Your task to perform on an android device: Open notification settings Image 0: 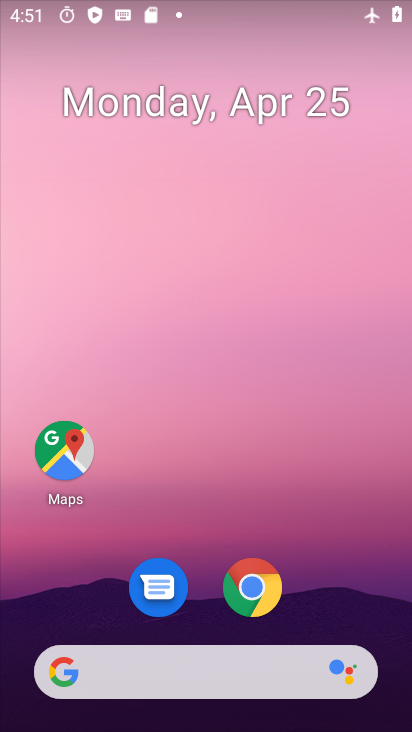
Step 0: drag from (324, 453) to (336, 87)
Your task to perform on an android device: Open notification settings Image 1: 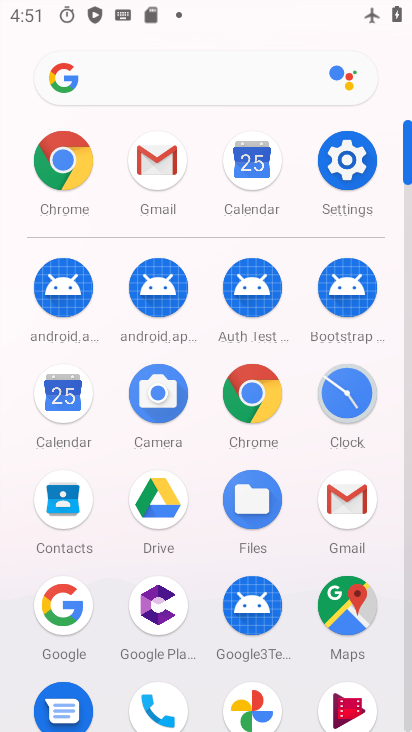
Step 1: click (355, 163)
Your task to perform on an android device: Open notification settings Image 2: 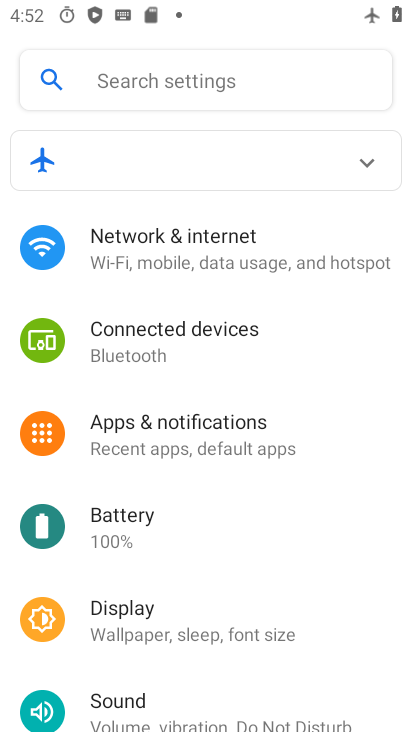
Step 2: drag from (191, 506) to (213, 352)
Your task to perform on an android device: Open notification settings Image 3: 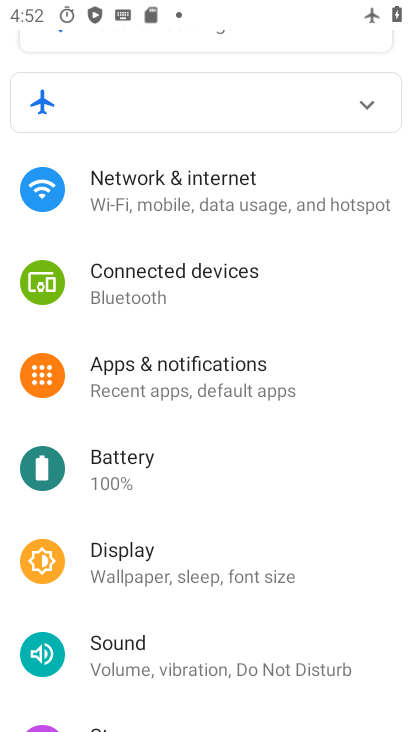
Step 3: click (199, 367)
Your task to perform on an android device: Open notification settings Image 4: 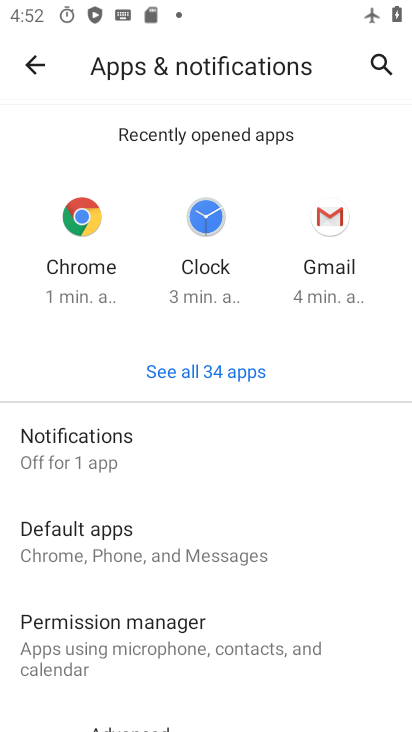
Step 4: click (98, 456)
Your task to perform on an android device: Open notification settings Image 5: 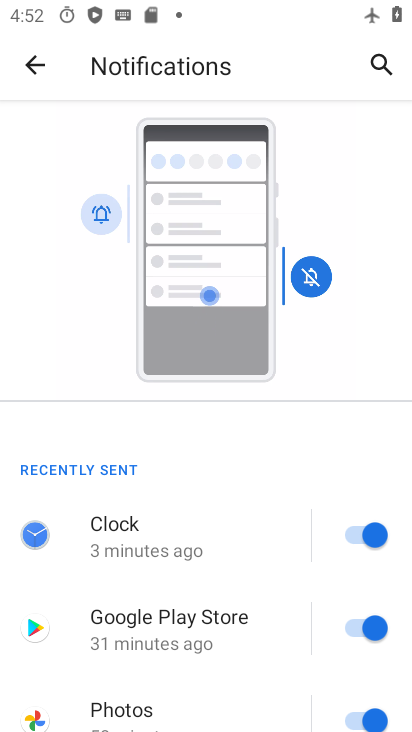
Step 5: task complete